Your task to perform on an android device: toggle airplane mode Image 0: 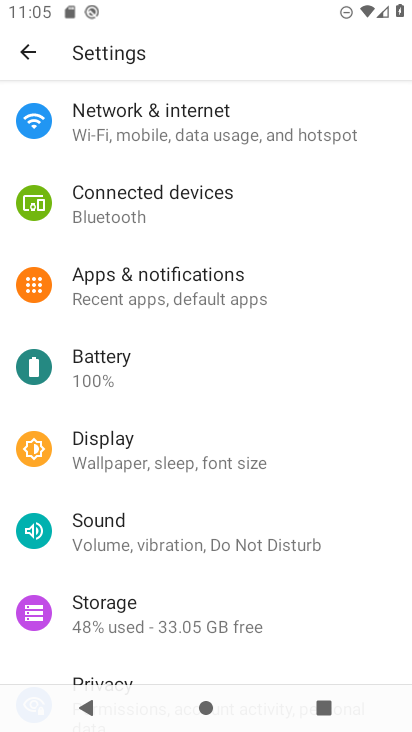
Step 0: drag from (182, 450) to (221, 670)
Your task to perform on an android device: toggle airplane mode Image 1: 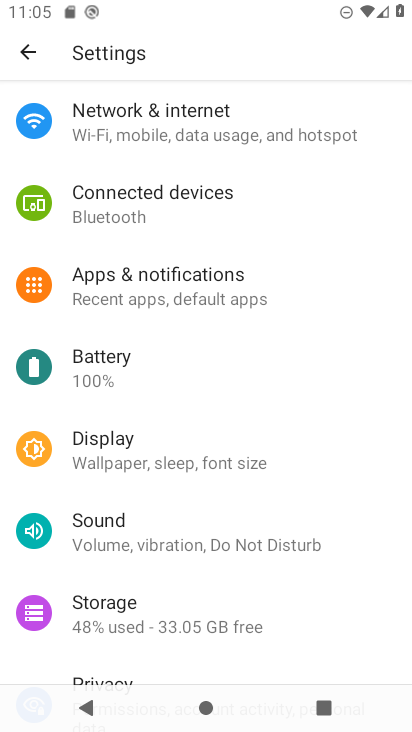
Step 1: click (156, 122)
Your task to perform on an android device: toggle airplane mode Image 2: 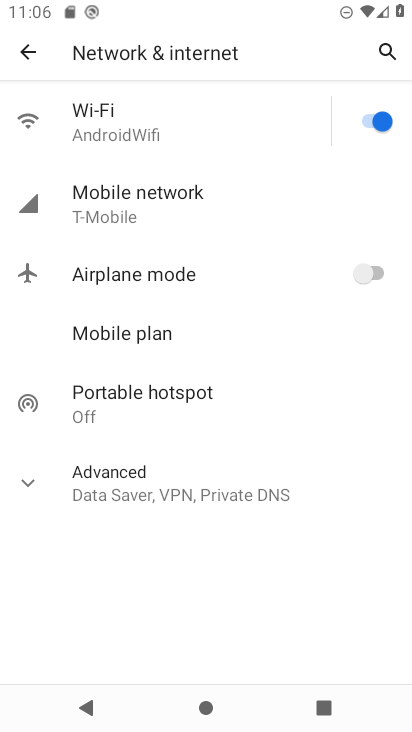
Step 2: click (392, 279)
Your task to perform on an android device: toggle airplane mode Image 3: 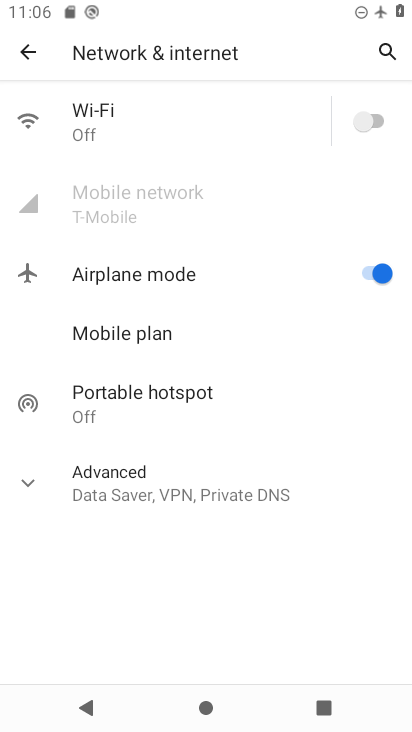
Step 3: task complete